Your task to perform on an android device: Do I have any events today? Image 0: 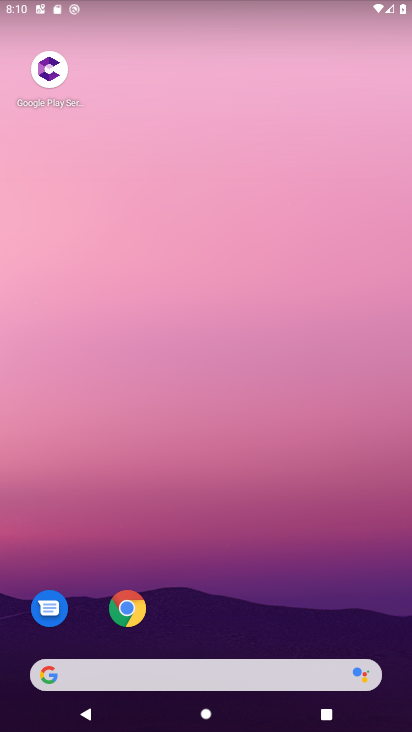
Step 0: drag from (74, 371) to (385, 509)
Your task to perform on an android device: Do I have any events today? Image 1: 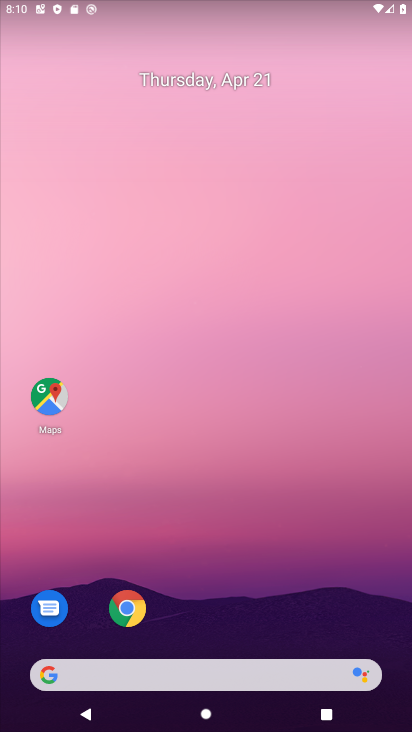
Step 1: click (168, 79)
Your task to perform on an android device: Do I have any events today? Image 2: 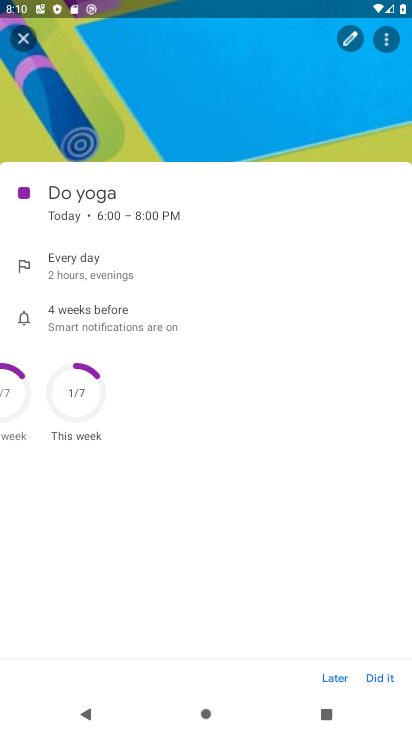
Step 2: click (168, 79)
Your task to perform on an android device: Do I have any events today? Image 3: 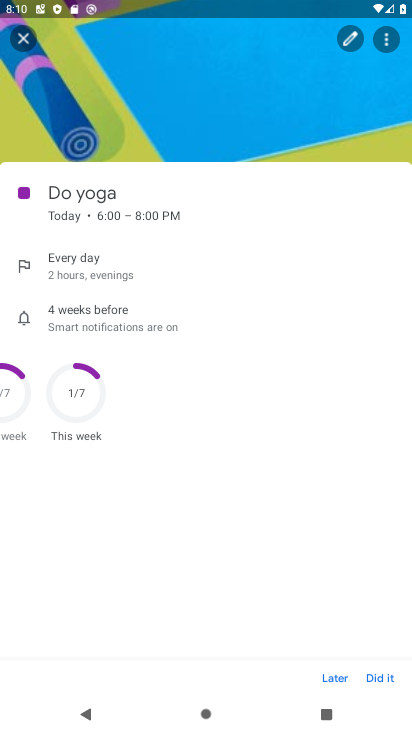
Step 3: task complete